Your task to perform on an android device: turn on showing notifications on the lock screen Image 0: 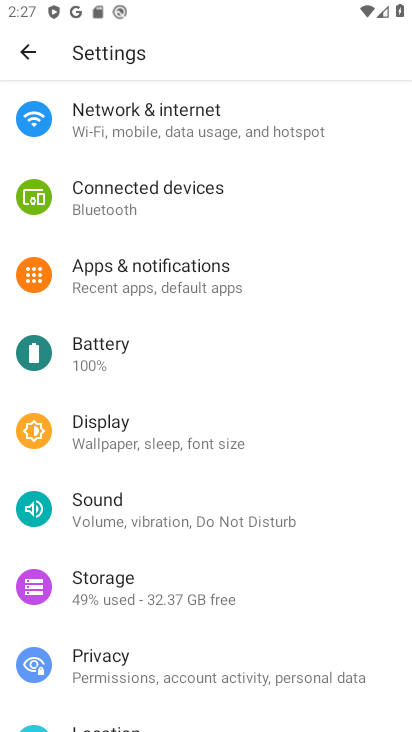
Step 0: click (188, 281)
Your task to perform on an android device: turn on showing notifications on the lock screen Image 1: 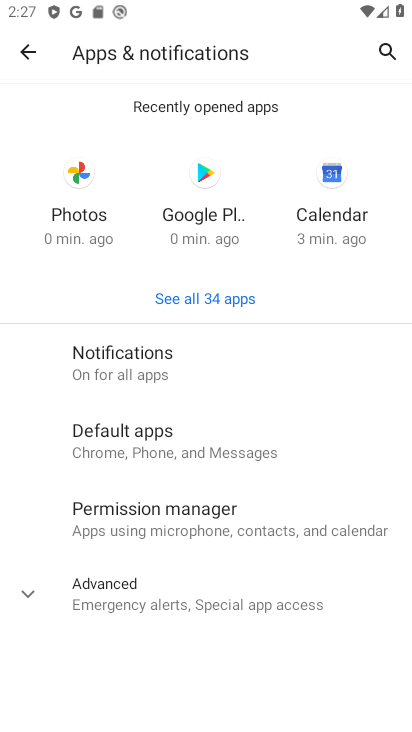
Step 1: click (142, 369)
Your task to perform on an android device: turn on showing notifications on the lock screen Image 2: 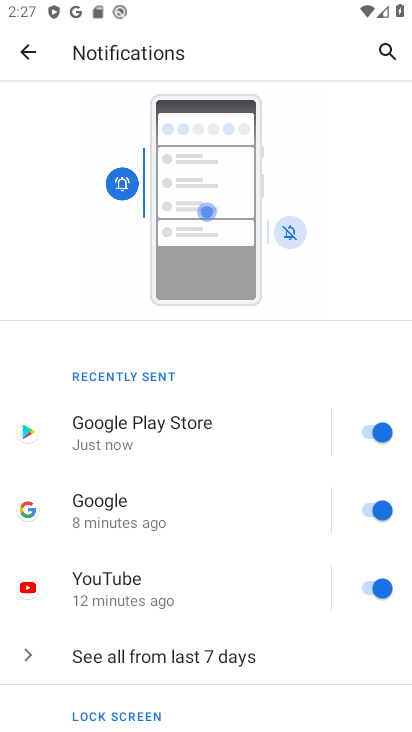
Step 2: drag from (207, 630) to (211, 297)
Your task to perform on an android device: turn on showing notifications on the lock screen Image 3: 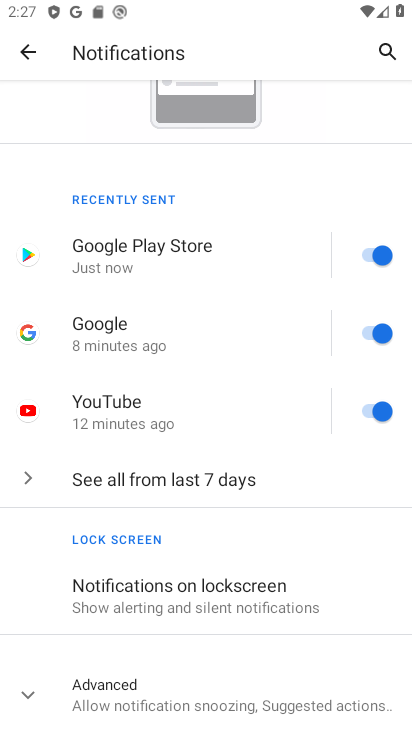
Step 3: click (185, 587)
Your task to perform on an android device: turn on showing notifications on the lock screen Image 4: 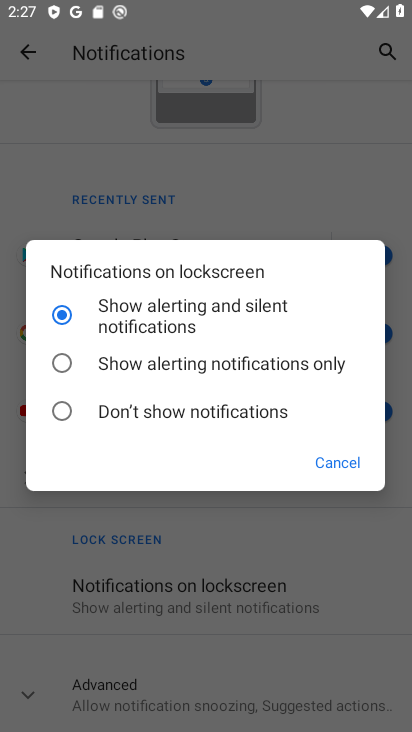
Step 4: task complete